Your task to perform on an android device: Empty the shopping cart on amazon.com. Image 0: 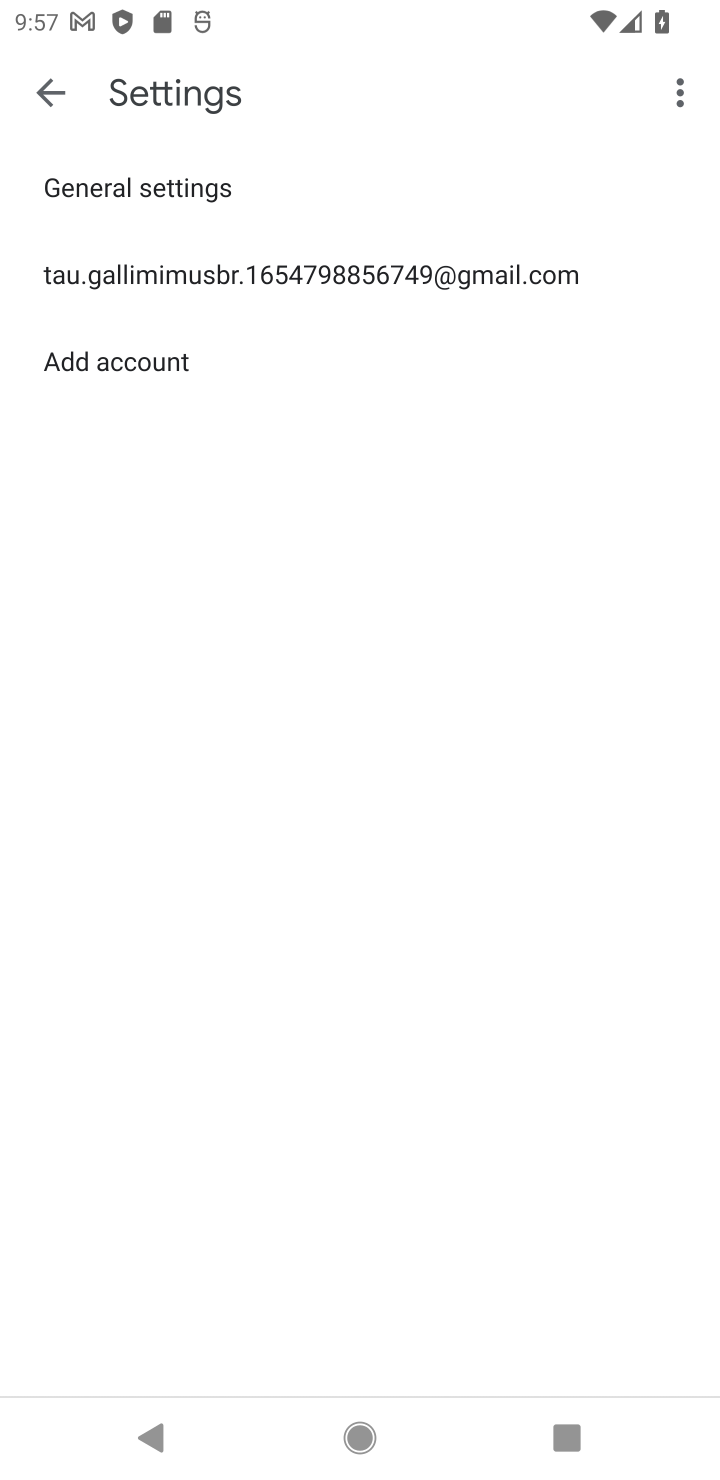
Step 0: press home button
Your task to perform on an android device: Empty the shopping cart on amazon.com. Image 1: 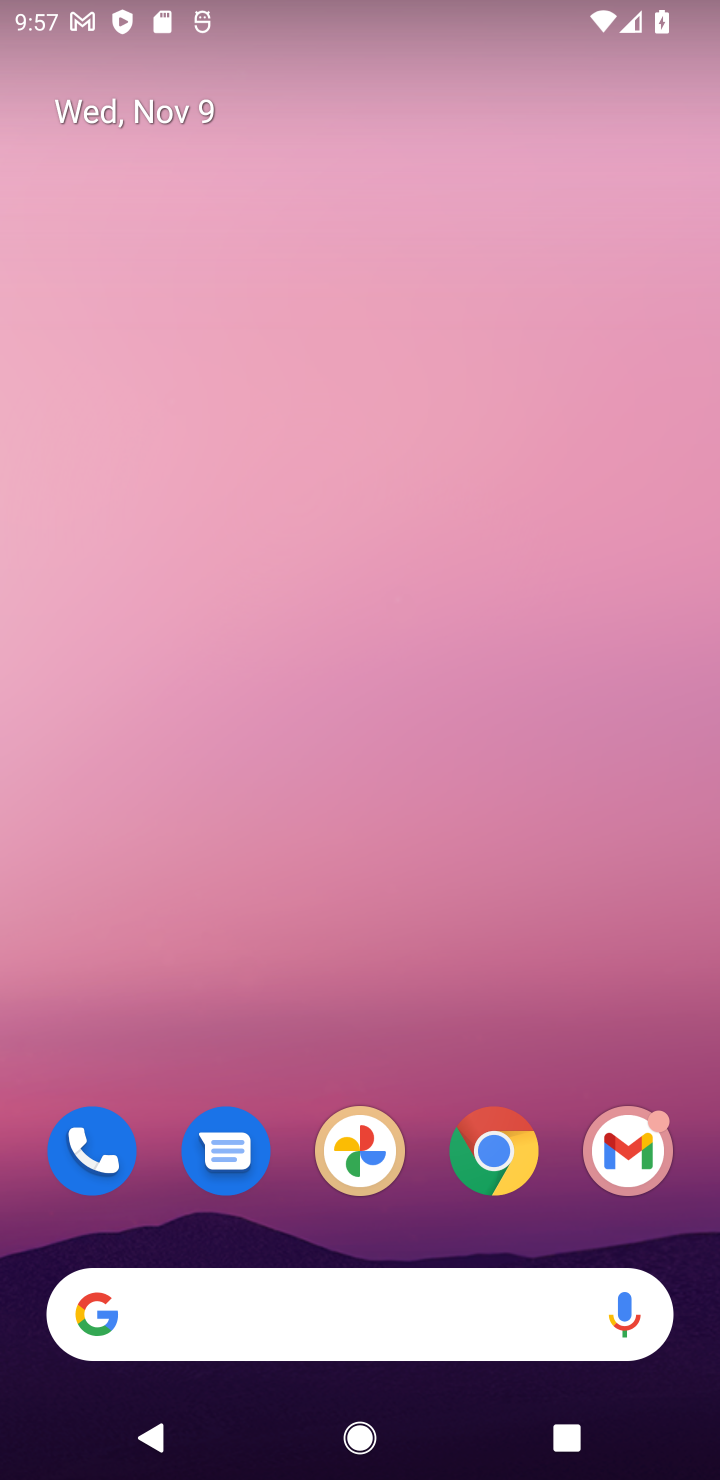
Step 1: click (504, 1140)
Your task to perform on an android device: Empty the shopping cart on amazon.com. Image 2: 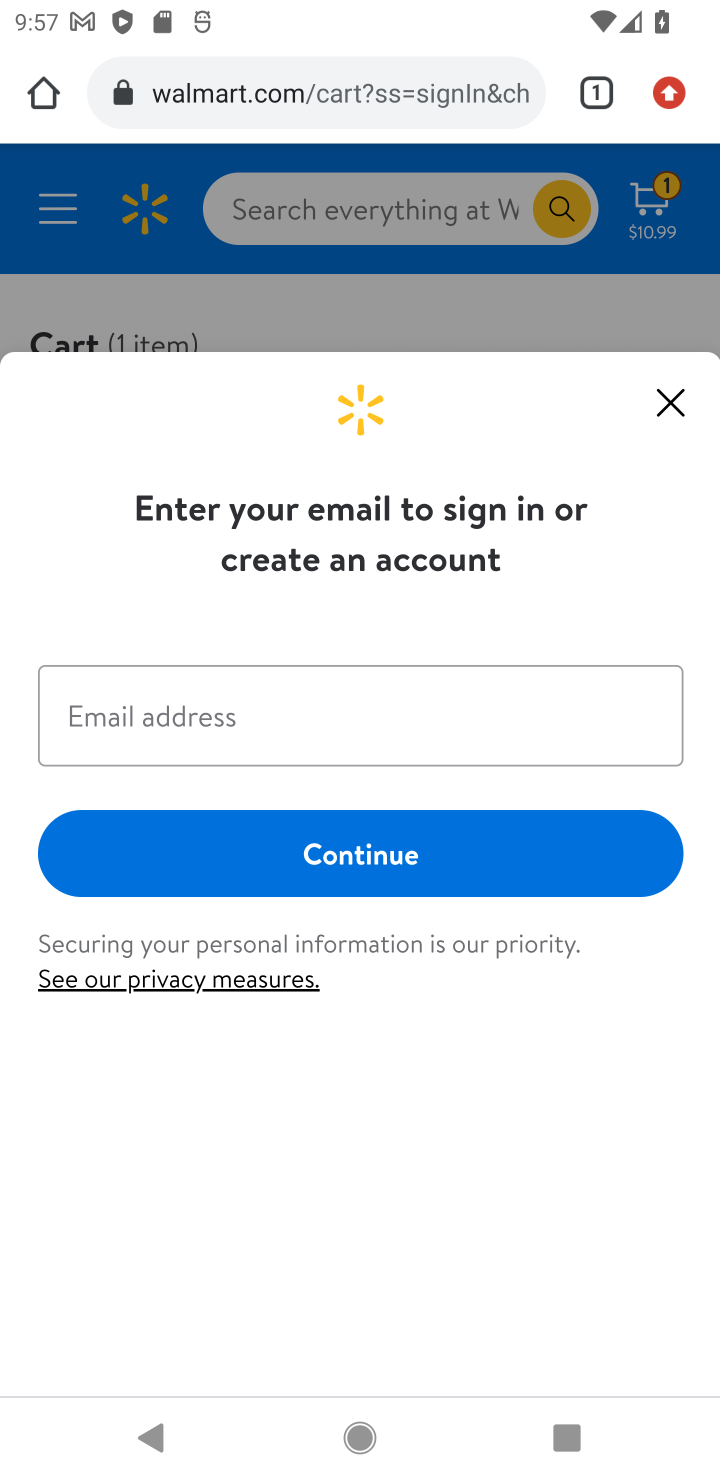
Step 2: click (246, 81)
Your task to perform on an android device: Empty the shopping cart on amazon.com. Image 3: 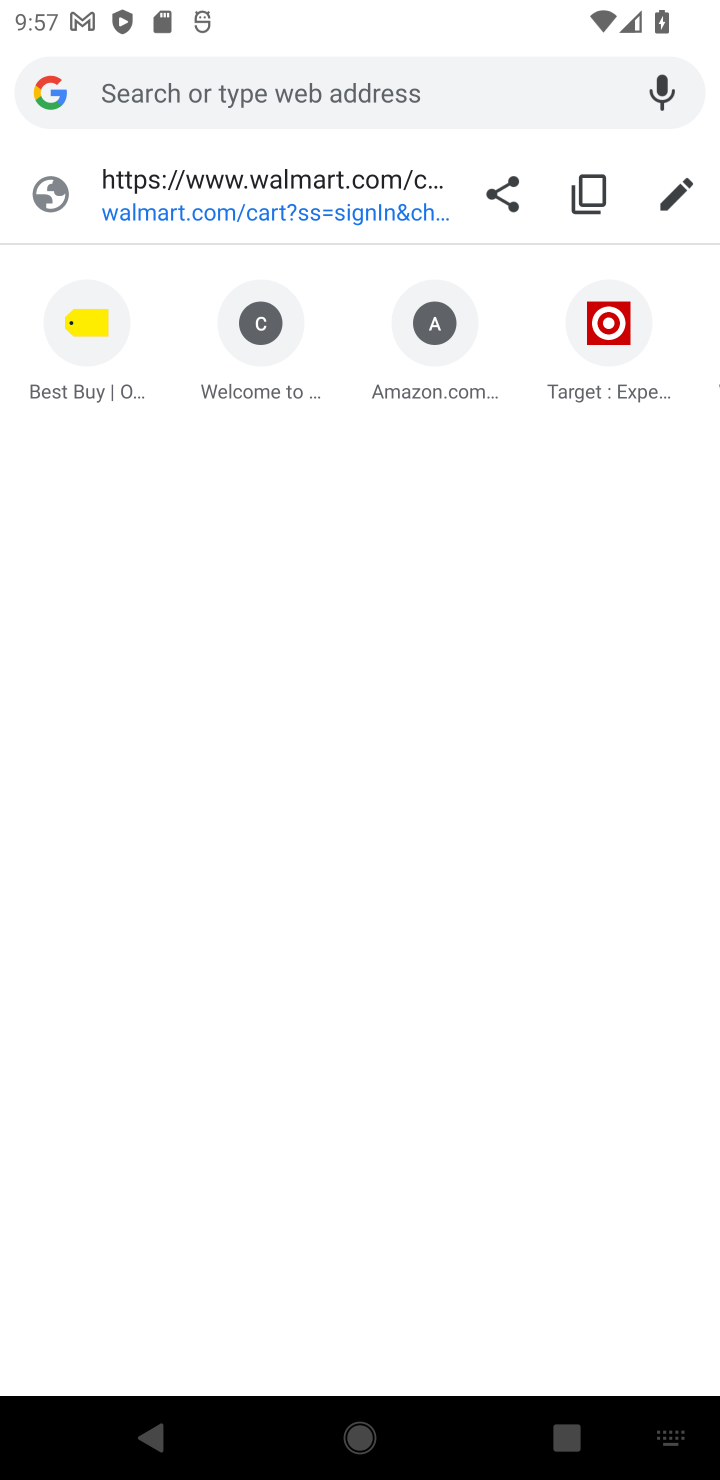
Step 3: click (437, 341)
Your task to perform on an android device: Empty the shopping cart on amazon.com. Image 4: 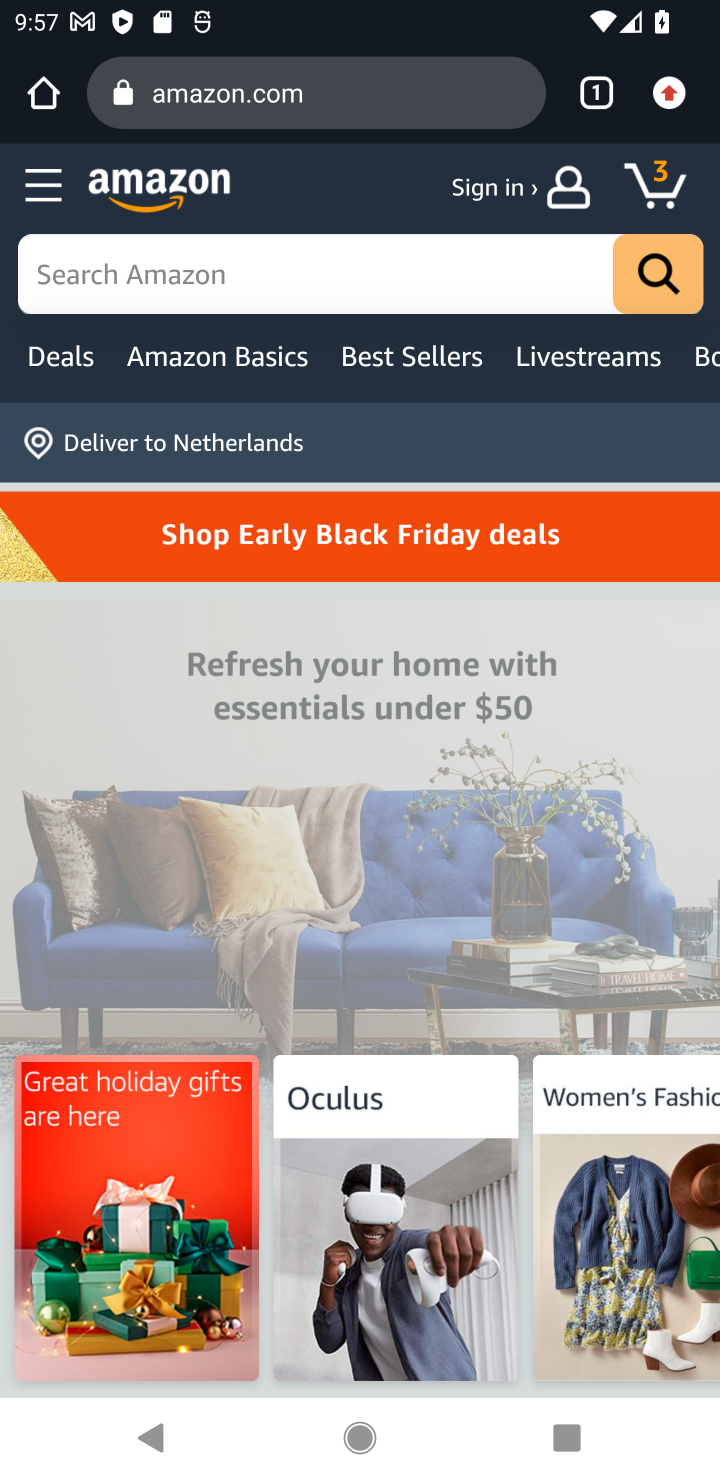
Step 4: click (660, 183)
Your task to perform on an android device: Empty the shopping cart on amazon.com. Image 5: 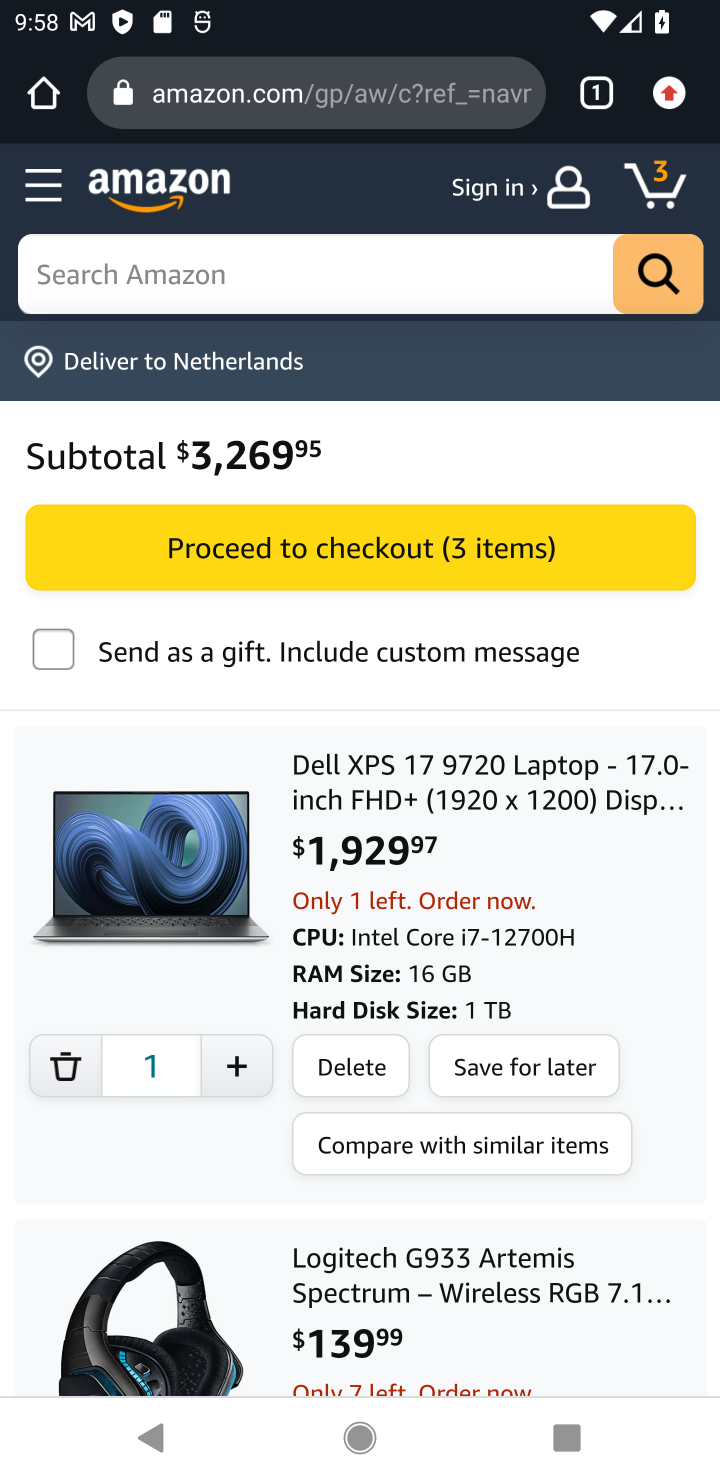
Step 5: click (337, 1071)
Your task to perform on an android device: Empty the shopping cart on amazon.com. Image 6: 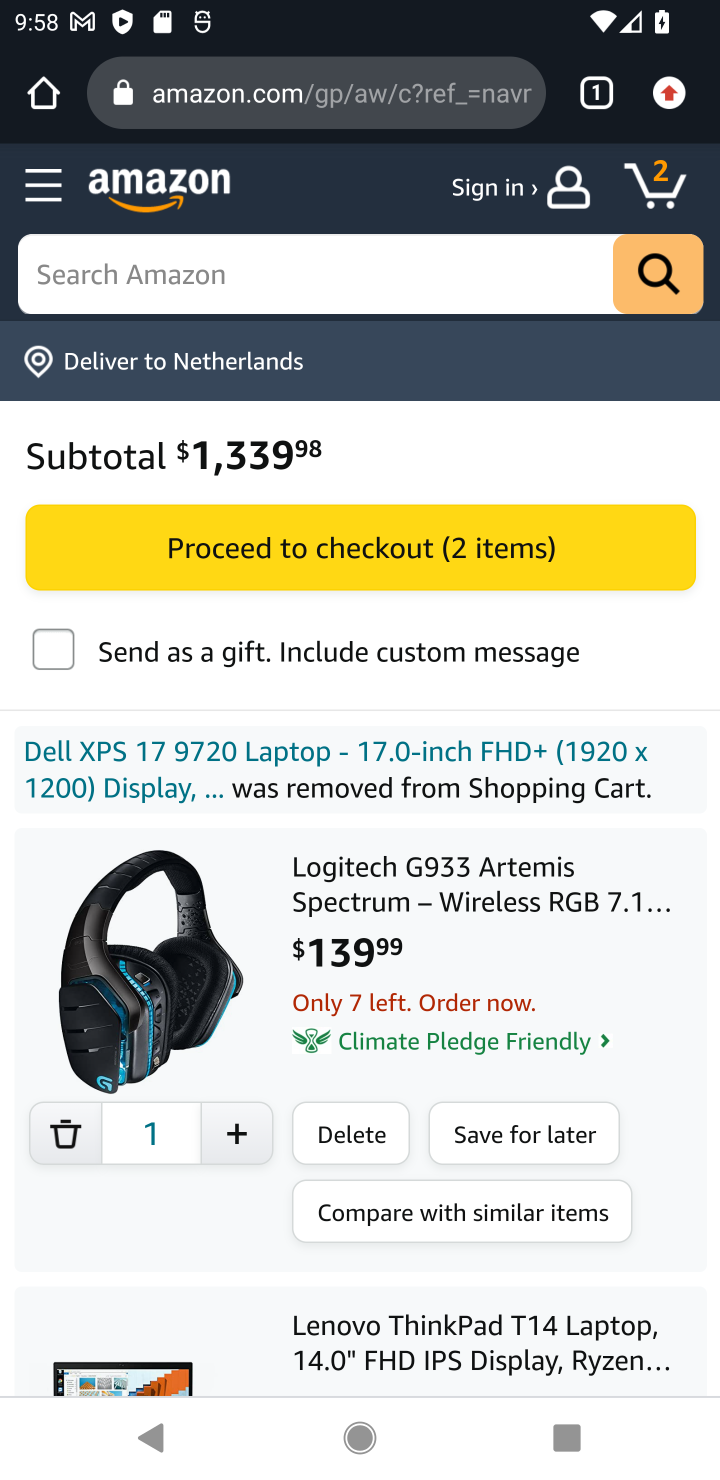
Step 6: click (361, 1132)
Your task to perform on an android device: Empty the shopping cart on amazon.com. Image 7: 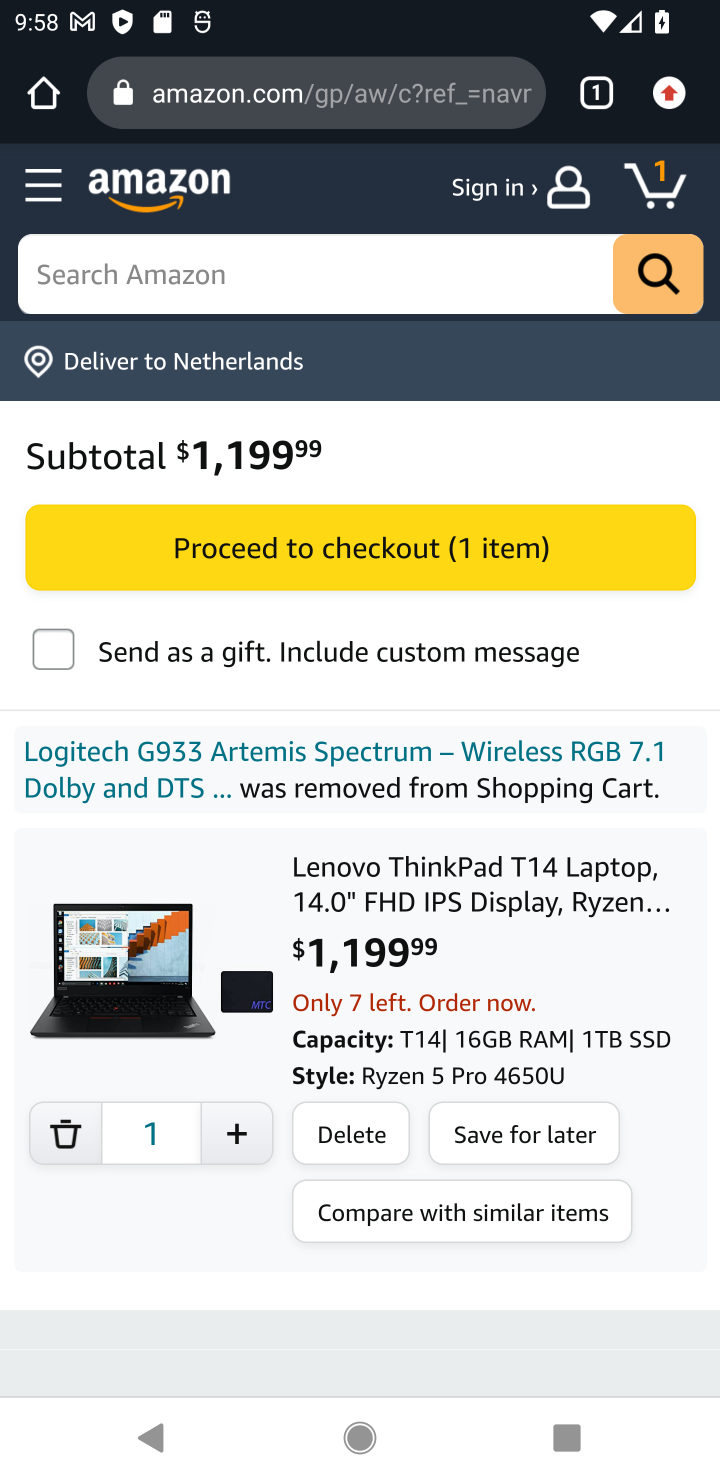
Step 7: click (362, 1134)
Your task to perform on an android device: Empty the shopping cart on amazon.com. Image 8: 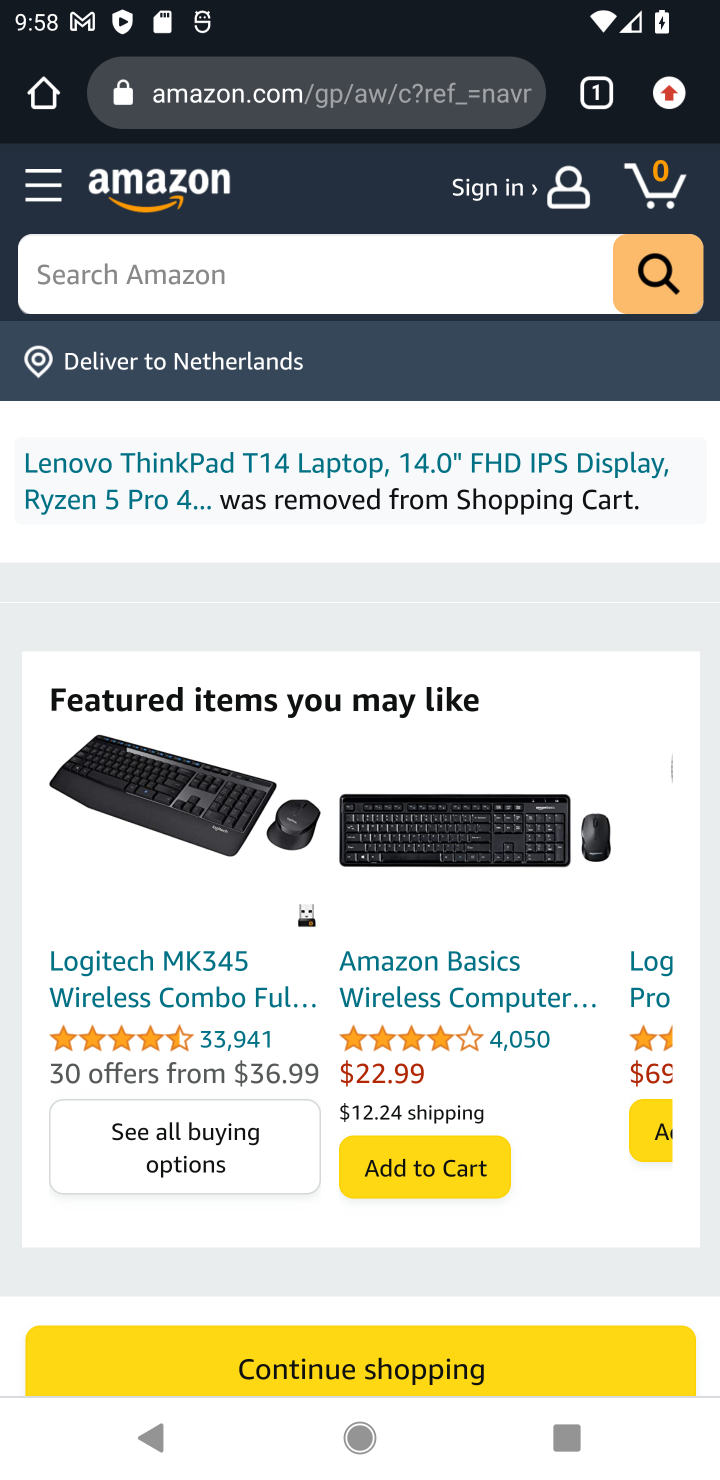
Step 8: task complete